Your task to perform on an android device: toggle location history Image 0: 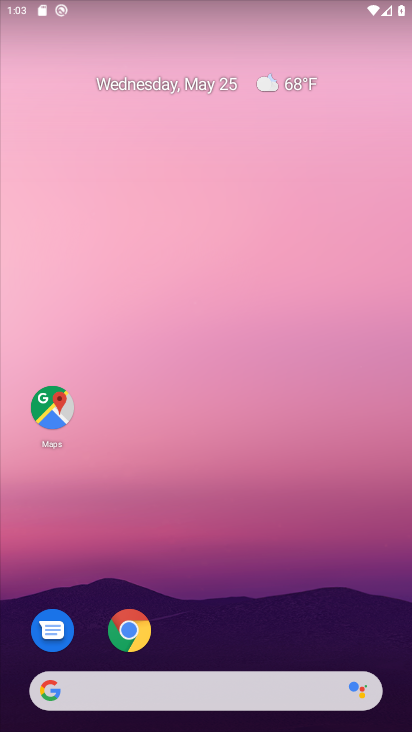
Step 0: drag from (259, 619) to (263, 264)
Your task to perform on an android device: toggle location history Image 1: 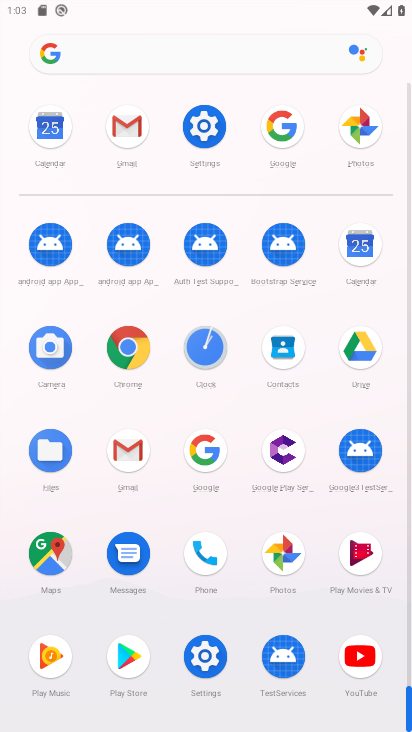
Step 1: click (215, 116)
Your task to perform on an android device: toggle location history Image 2: 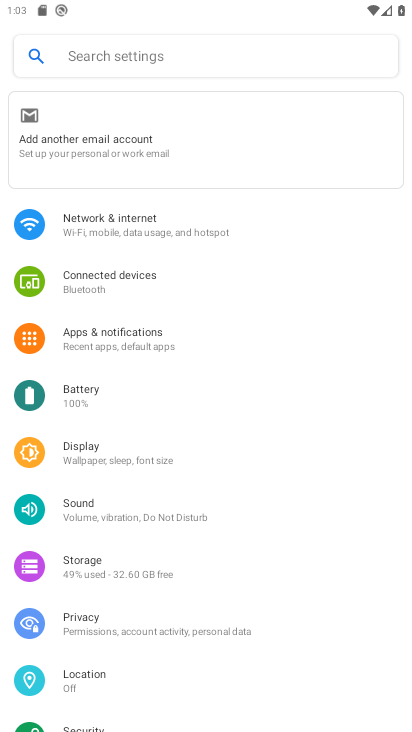
Step 2: click (203, 661)
Your task to perform on an android device: toggle location history Image 3: 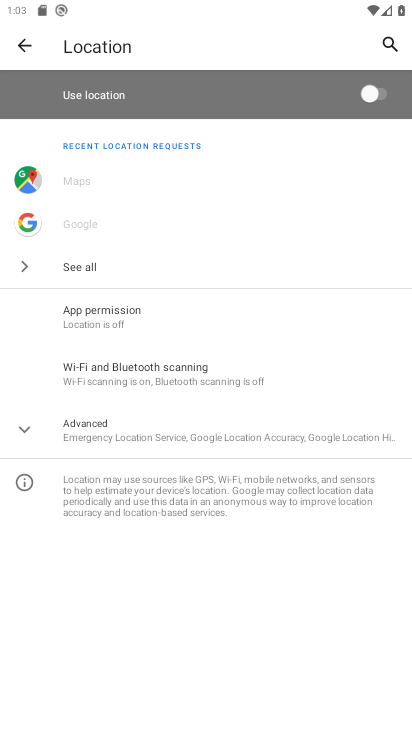
Step 3: click (199, 437)
Your task to perform on an android device: toggle location history Image 4: 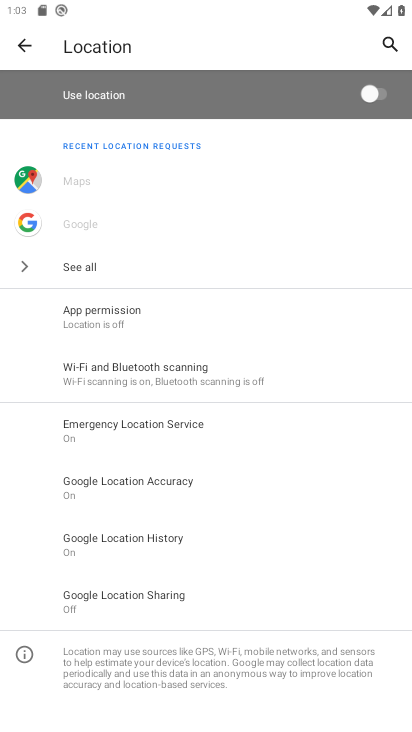
Step 4: click (186, 548)
Your task to perform on an android device: toggle location history Image 5: 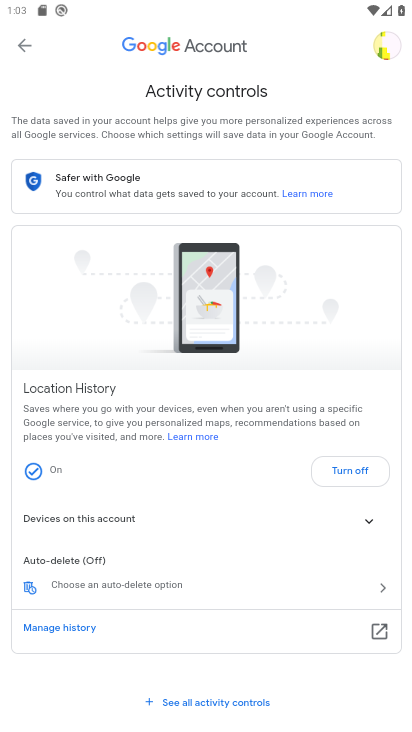
Step 5: click (327, 475)
Your task to perform on an android device: toggle location history Image 6: 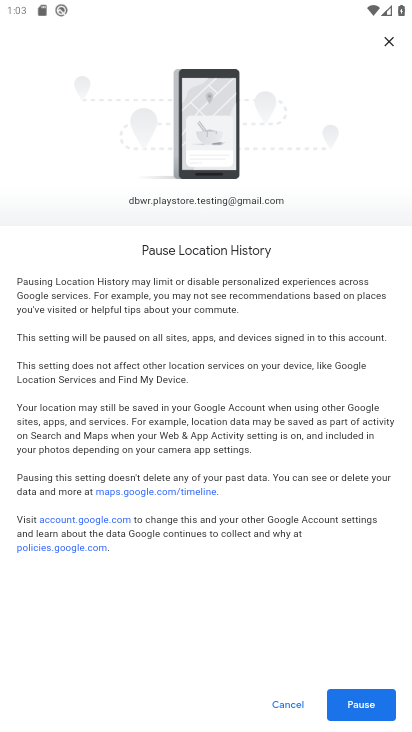
Step 6: click (353, 710)
Your task to perform on an android device: toggle location history Image 7: 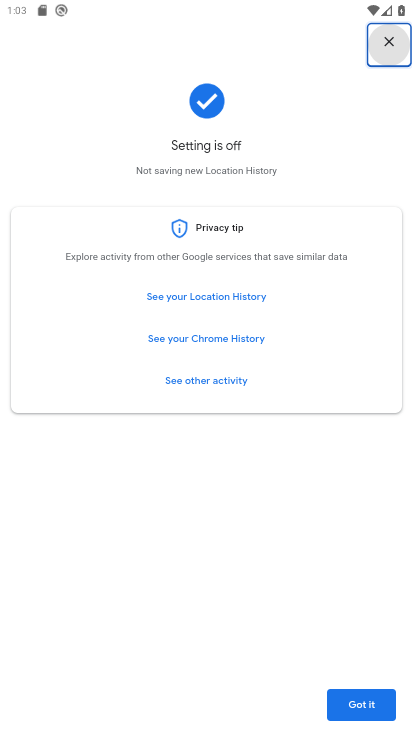
Step 7: task complete